Your task to perform on an android device: Open Yahoo.com Image 0: 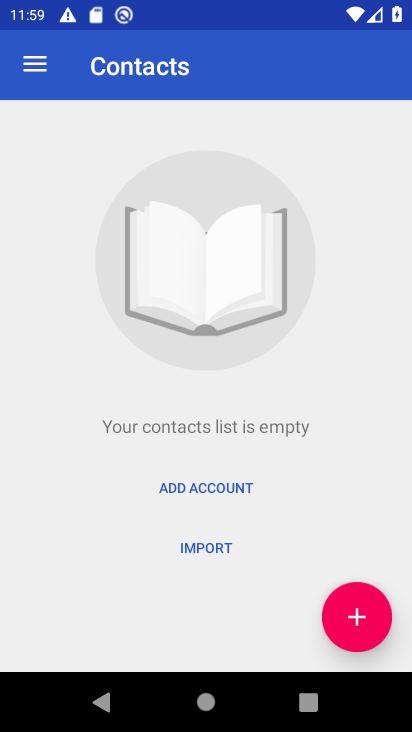
Step 0: press home button
Your task to perform on an android device: Open Yahoo.com Image 1: 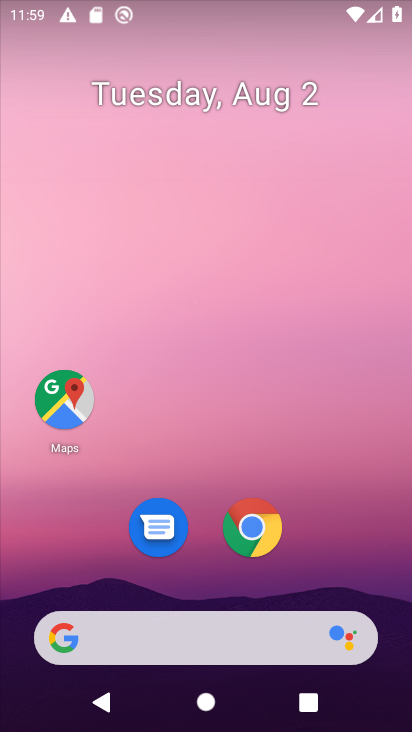
Step 1: click (109, 645)
Your task to perform on an android device: Open Yahoo.com Image 2: 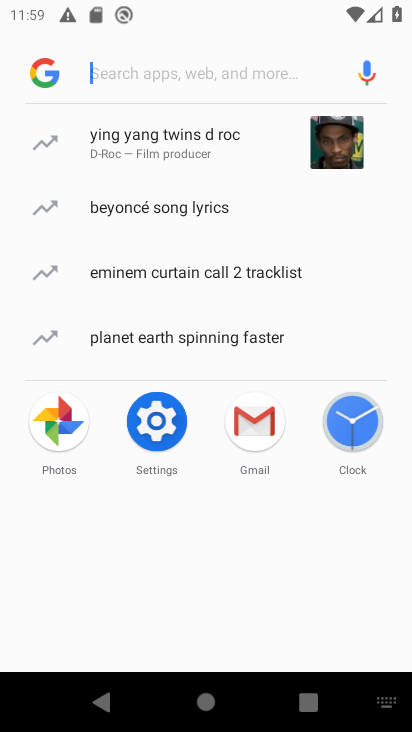
Step 2: type " Yahoo.com"
Your task to perform on an android device: Open Yahoo.com Image 3: 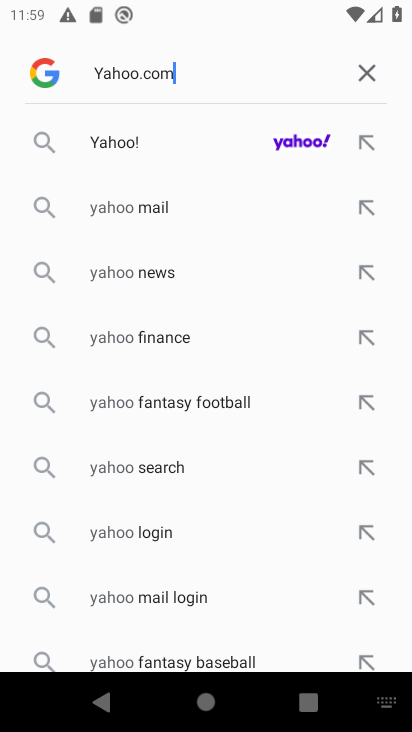
Step 3: type ""
Your task to perform on an android device: Open Yahoo.com Image 4: 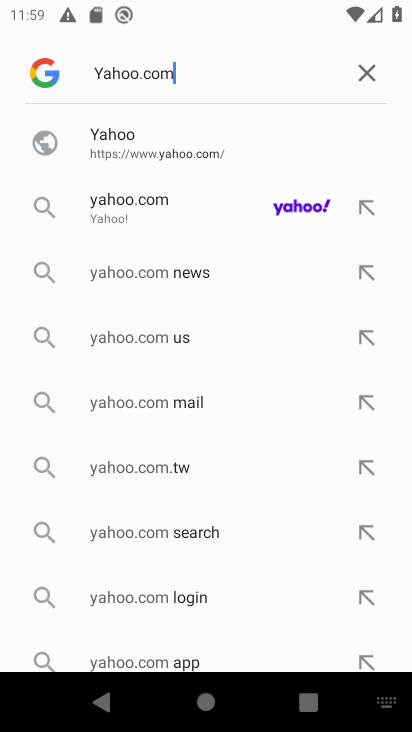
Step 4: click (150, 206)
Your task to perform on an android device: Open Yahoo.com Image 5: 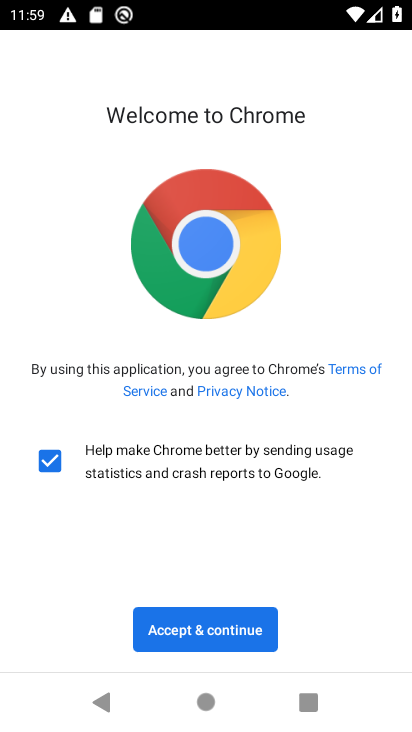
Step 5: click (191, 637)
Your task to perform on an android device: Open Yahoo.com Image 6: 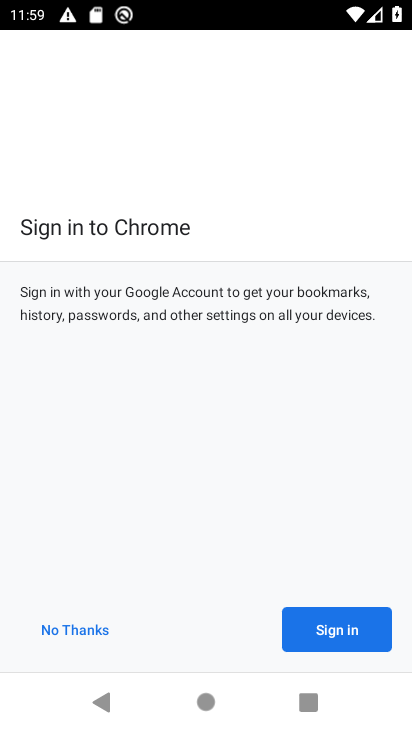
Step 6: click (82, 631)
Your task to perform on an android device: Open Yahoo.com Image 7: 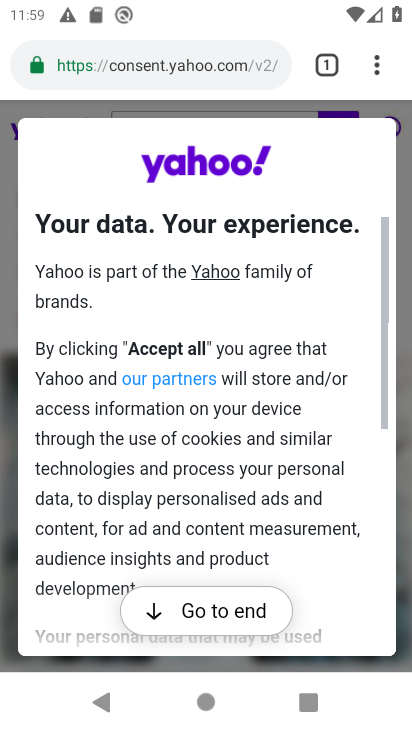
Step 7: task complete